Your task to perform on an android device: open device folders in google photos Image 0: 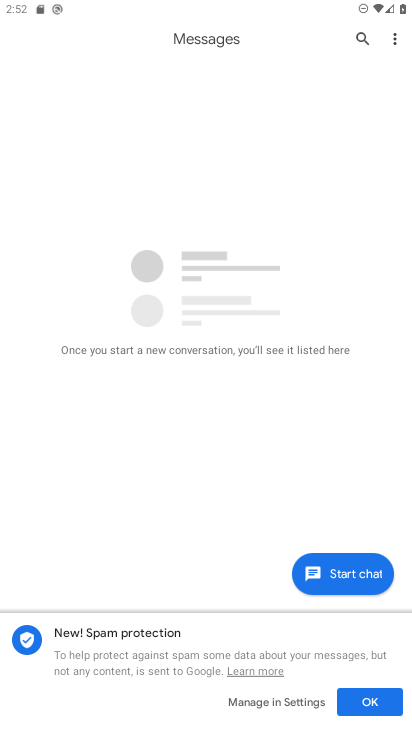
Step 0: press home button
Your task to perform on an android device: open device folders in google photos Image 1: 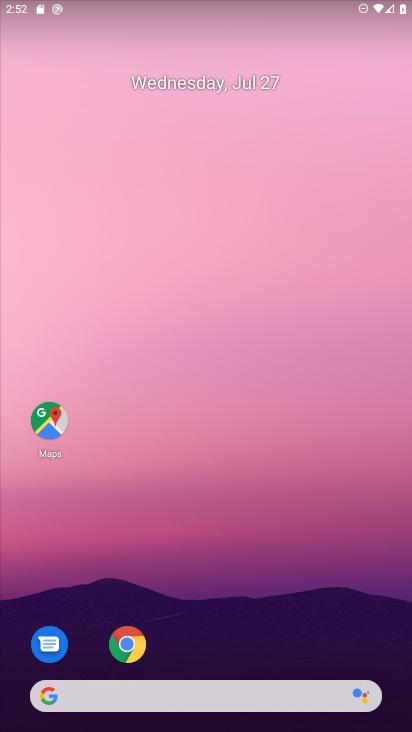
Step 1: drag from (227, 614) to (274, 4)
Your task to perform on an android device: open device folders in google photos Image 2: 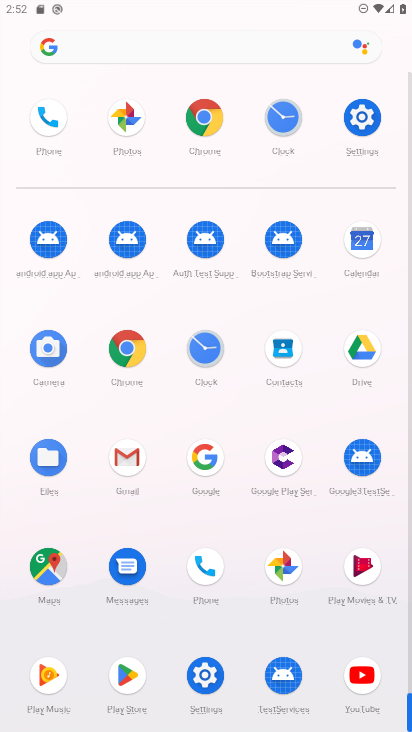
Step 2: click (281, 559)
Your task to perform on an android device: open device folders in google photos Image 3: 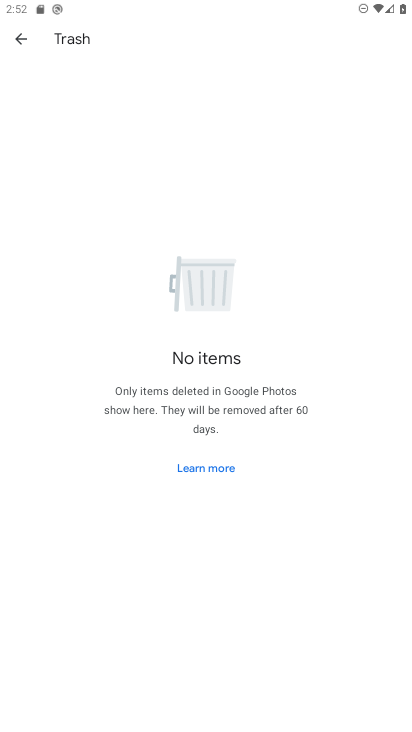
Step 3: click (22, 35)
Your task to perform on an android device: open device folders in google photos Image 4: 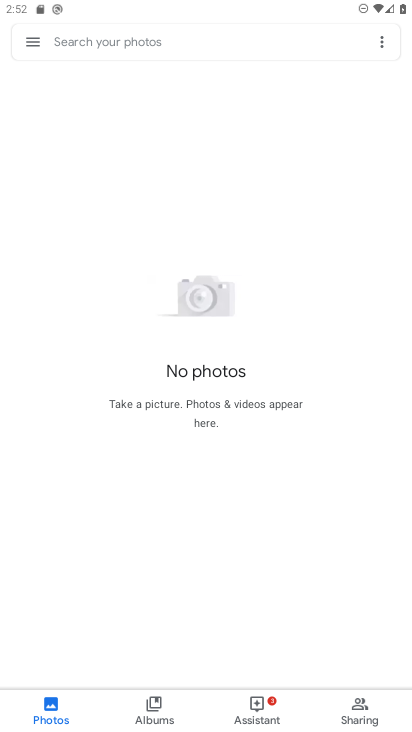
Step 4: click (29, 39)
Your task to perform on an android device: open device folders in google photos Image 5: 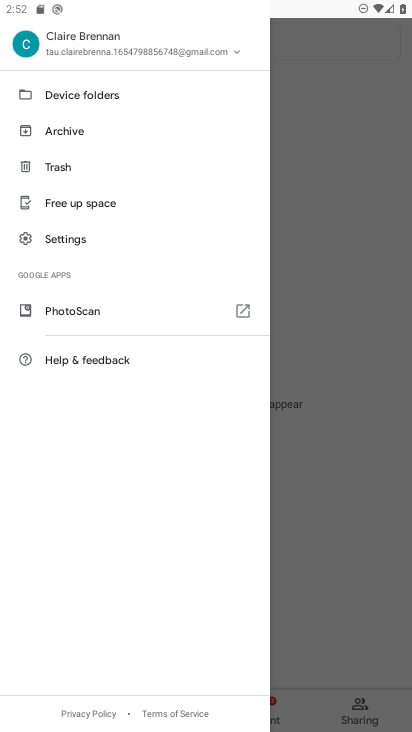
Step 5: click (97, 98)
Your task to perform on an android device: open device folders in google photos Image 6: 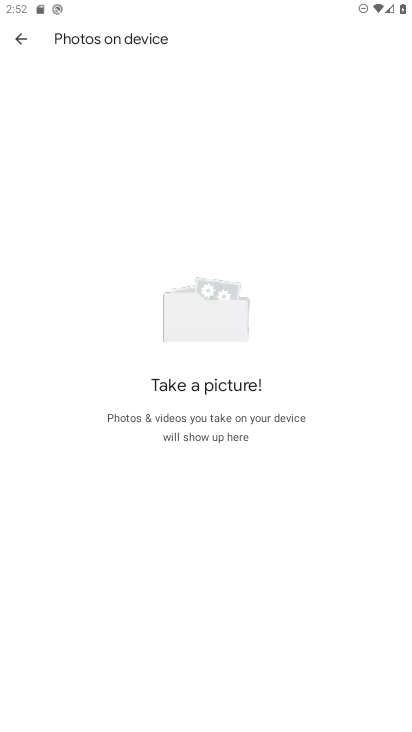
Step 6: task complete